Your task to perform on an android device: Go to Google Image 0: 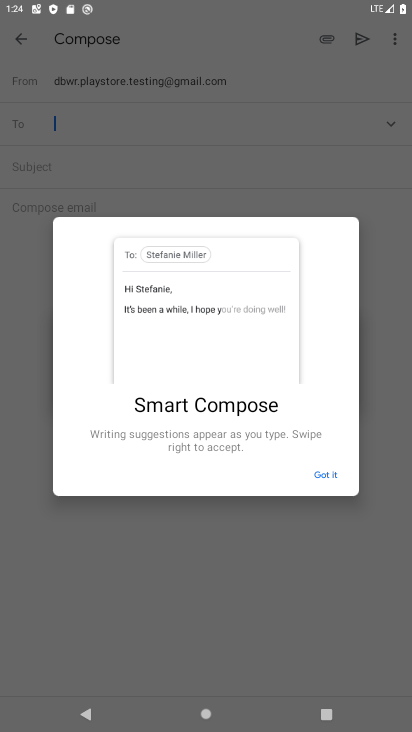
Step 0: press home button
Your task to perform on an android device: Go to Google Image 1: 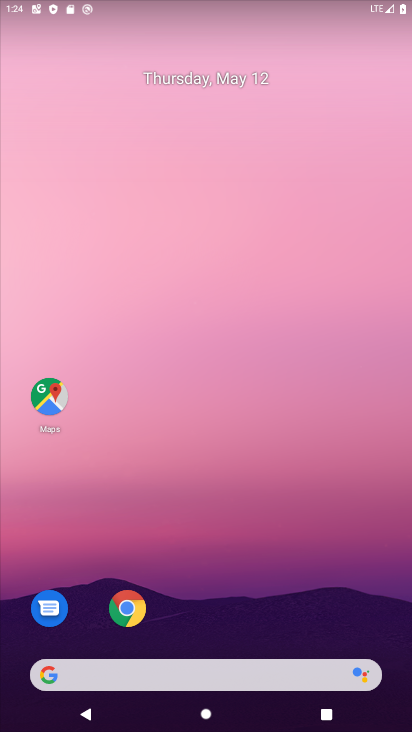
Step 1: drag from (253, 602) to (243, 2)
Your task to perform on an android device: Go to Google Image 2: 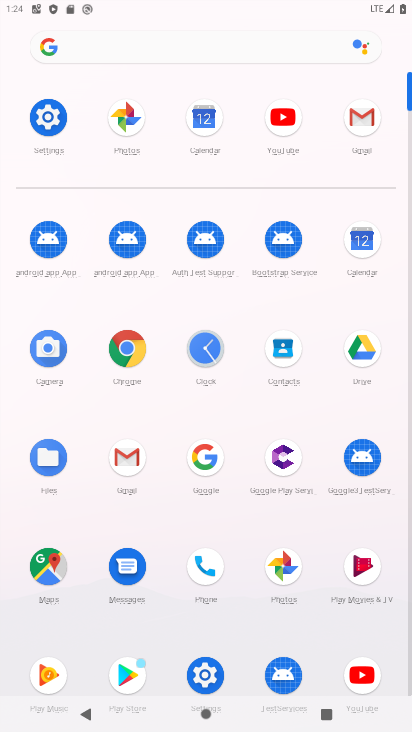
Step 2: click (207, 460)
Your task to perform on an android device: Go to Google Image 3: 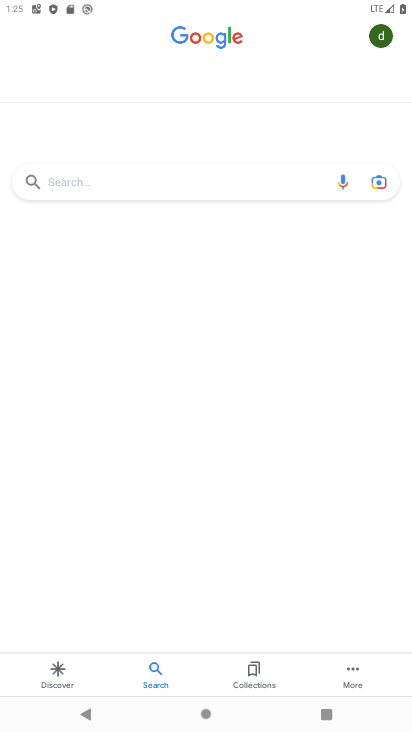
Step 3: task complete